Your task to perform on an android device: Open display settings Image 0: 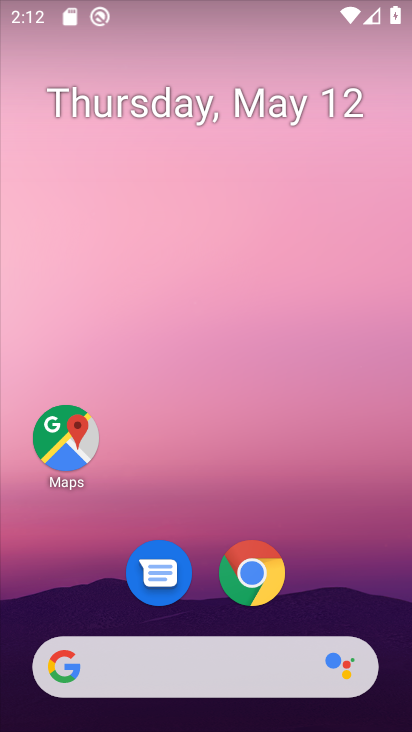
Step 0: drag from (196, 614) to (252, 215)
Your task to perform on an android device: Open display settings Image 1: 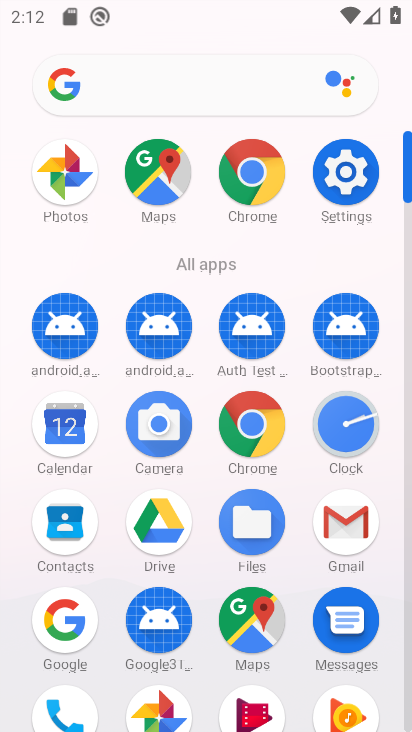
Step 1: click (342, 181)
Your task to perform on an android device: Open display settings Image 2: 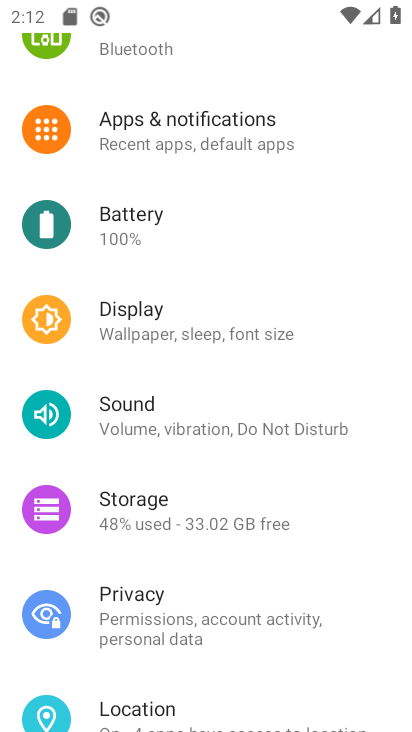
Step 2: click (182, 319)
Your task to perform on an android device: Open display settings Image 3: 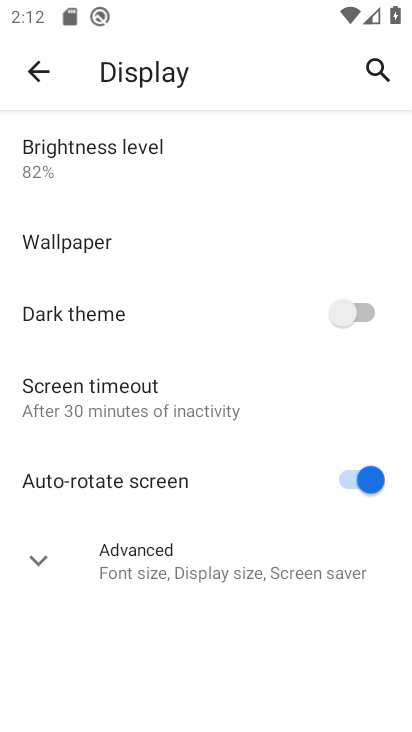
Step 3: task complete